Your task to perform on an android device: change notification settings in the gmail app Image 0: 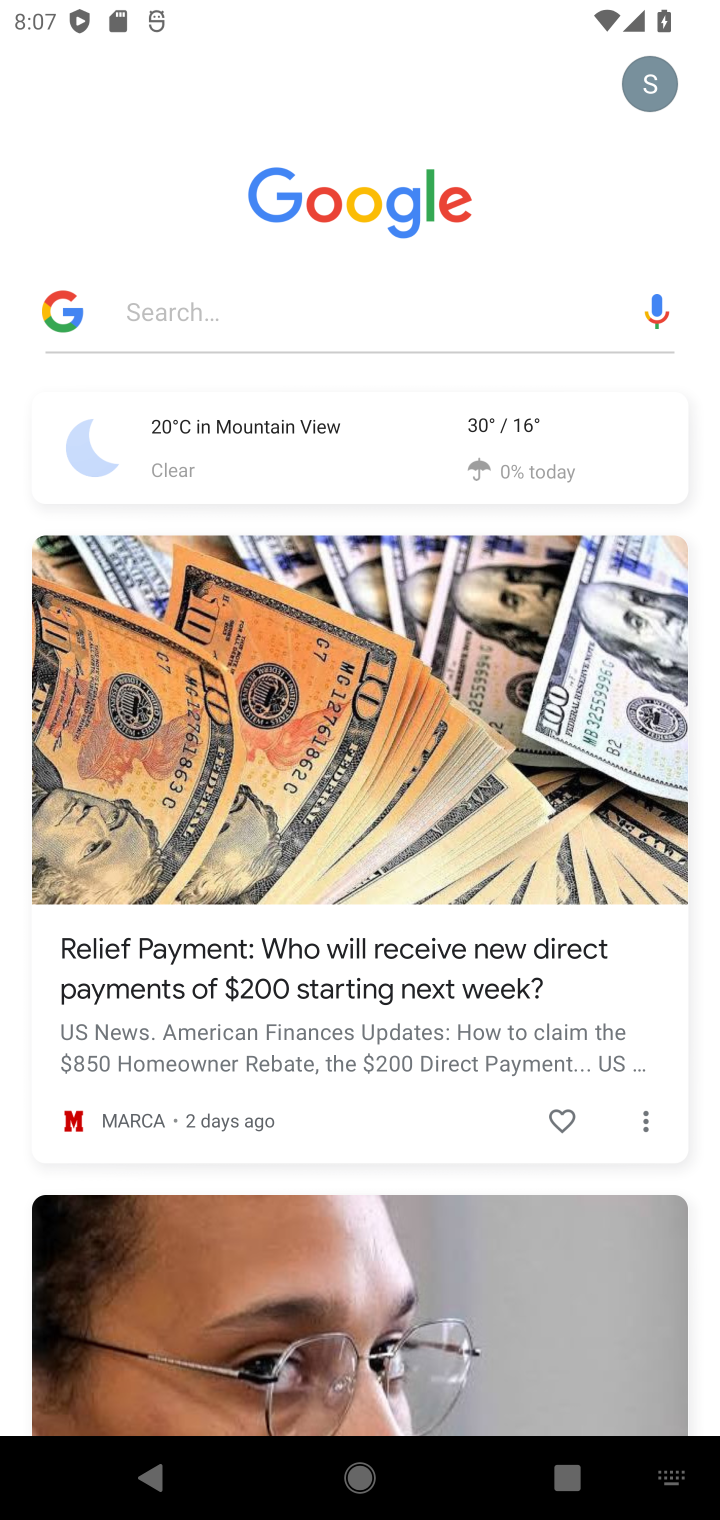
Step 0: press home button
Your task to perform on an android device: change notification settings in the gmail app Image 1: 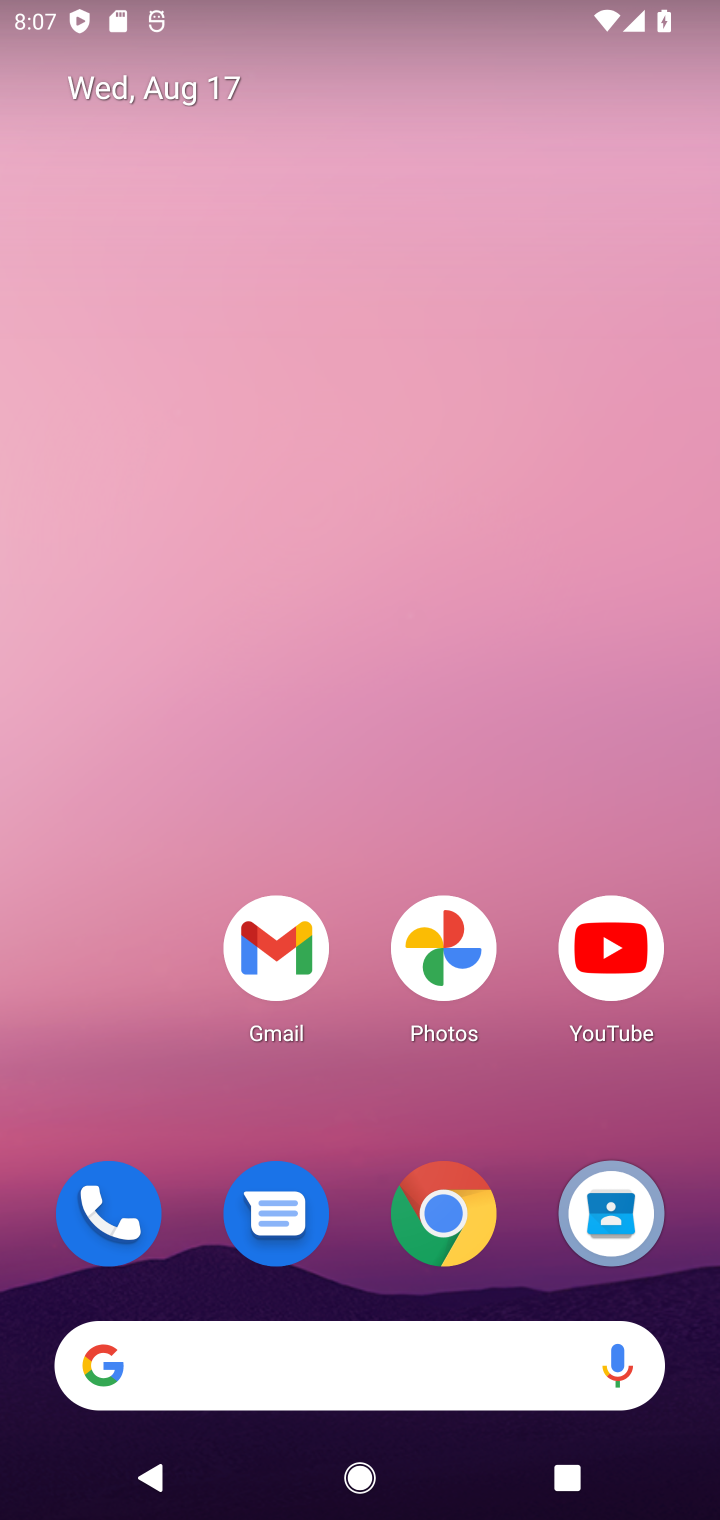
Step 1: drag from (357, 1274) to (445, 457)
Your task to perform on an android device: change notification settings in the gmail app Image 2: 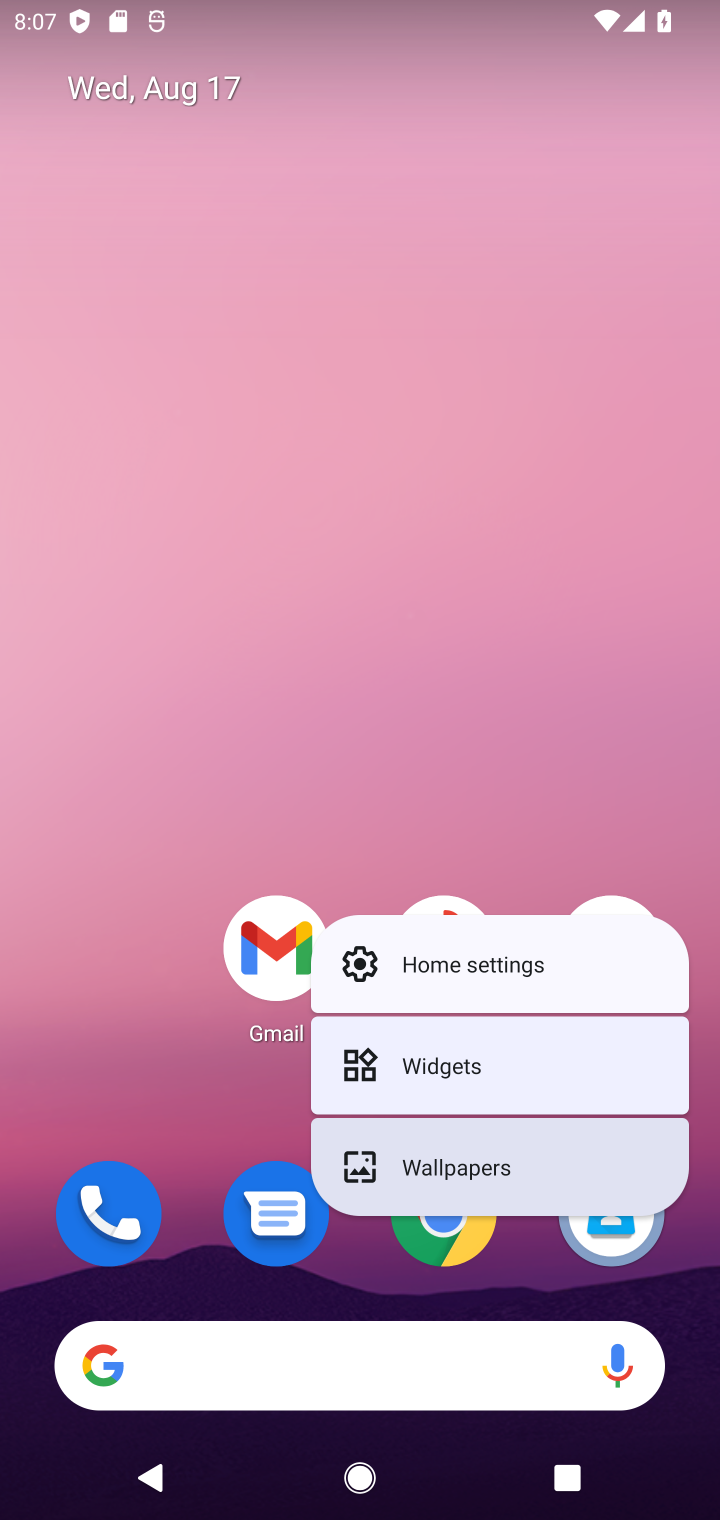
Step 2: click (445, 457)
Your task to perform on an android device: change notification settings in the gmail app Image 3: 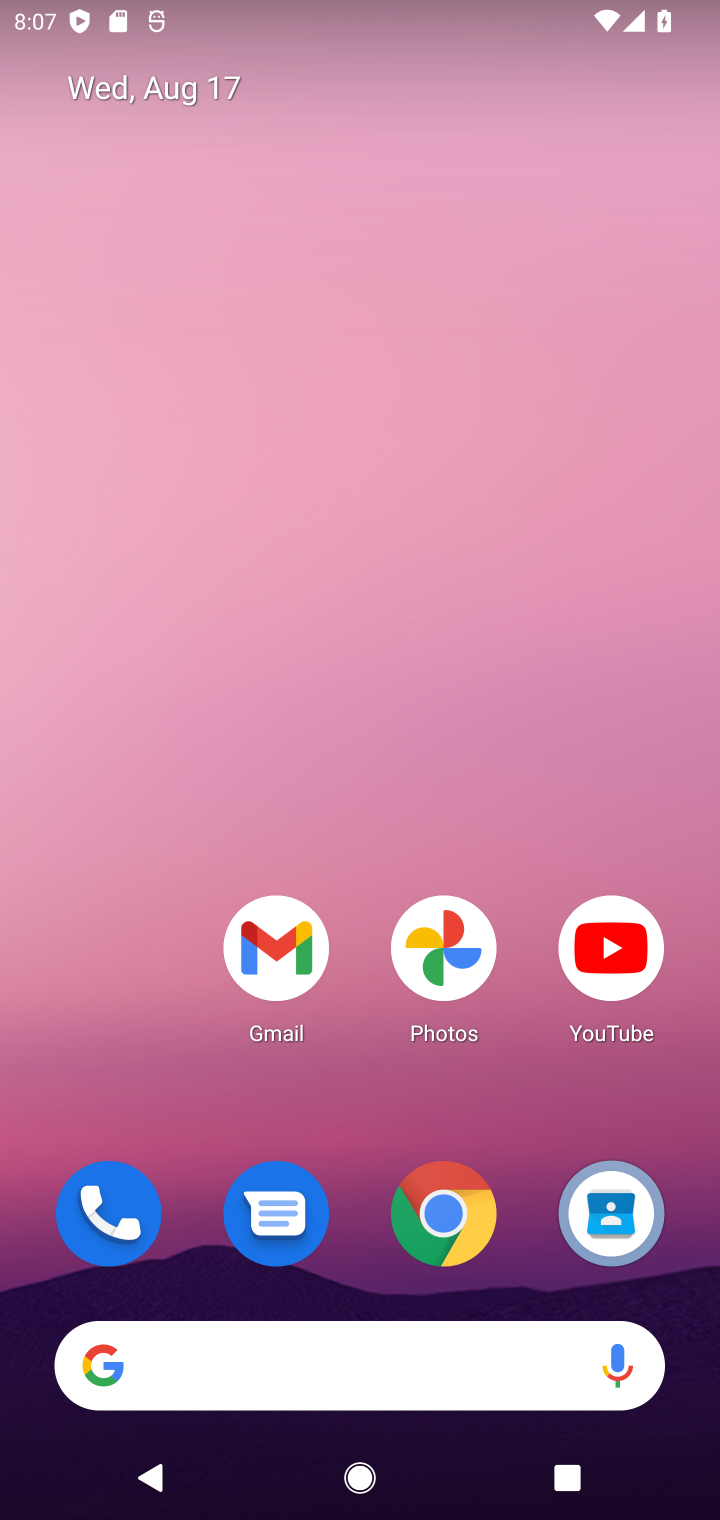
Step 3: drag from (354, 1292) to (345, 157)
Your task to perform on an android device: change notification settings in the gmail app Image 4: 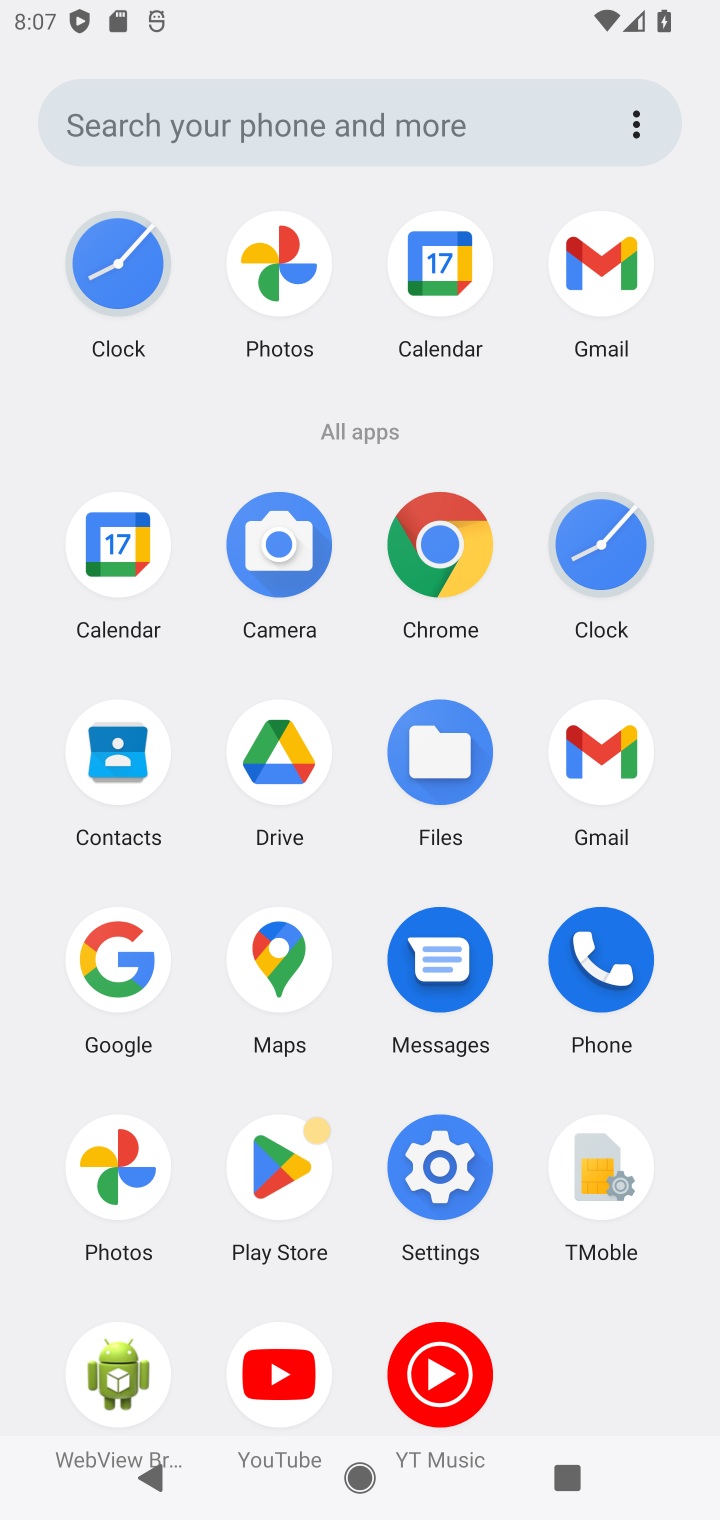
Step 4: click (441, 1155)
Your task to perform on an android device: change notification settings in the gmail app Image 5: 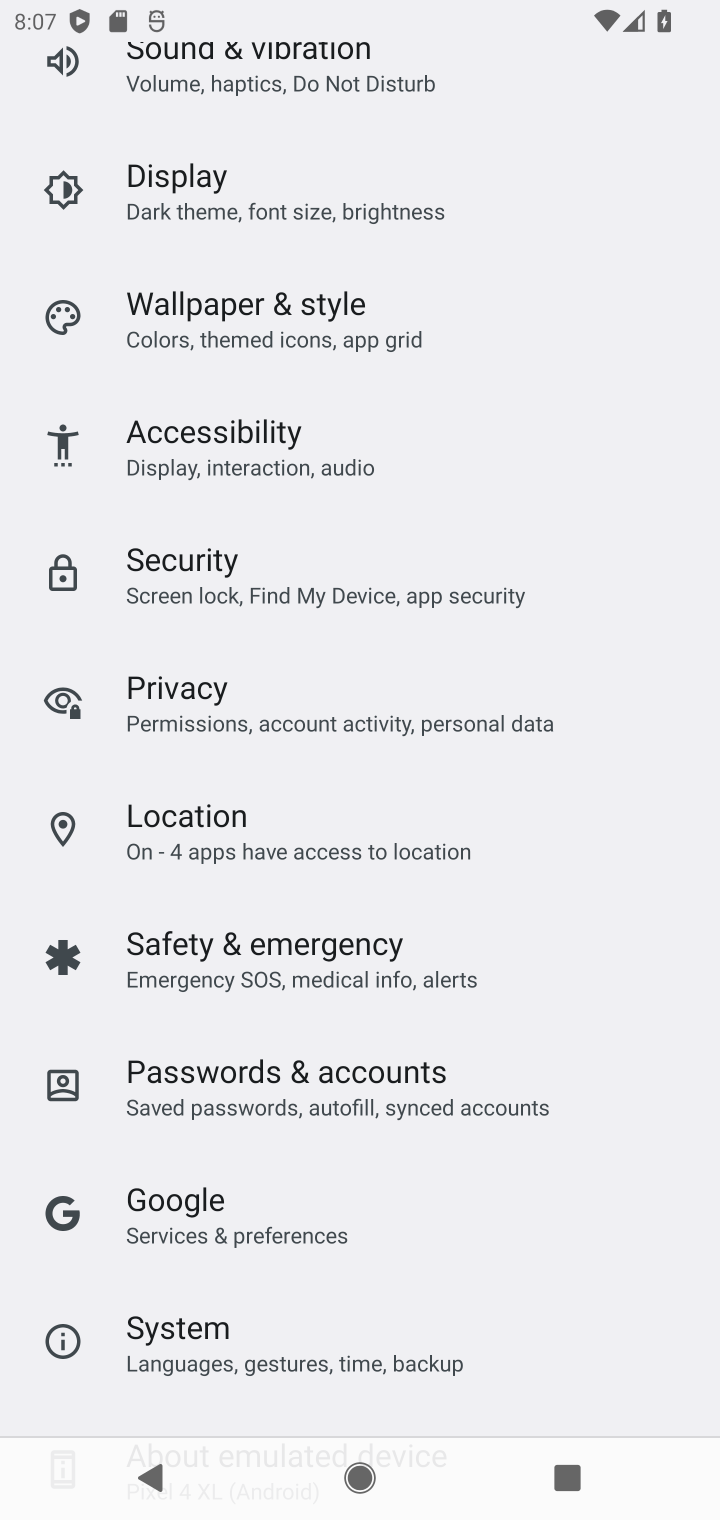
Step 5: task complete